Your task to perform on an android device: Open Amazon Image 0: 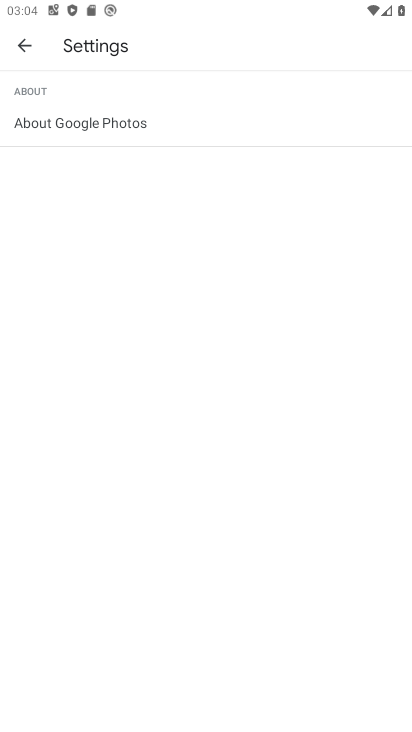
Step 0: press home button
Your task to perform on an android device: Open Amazon Image 1: 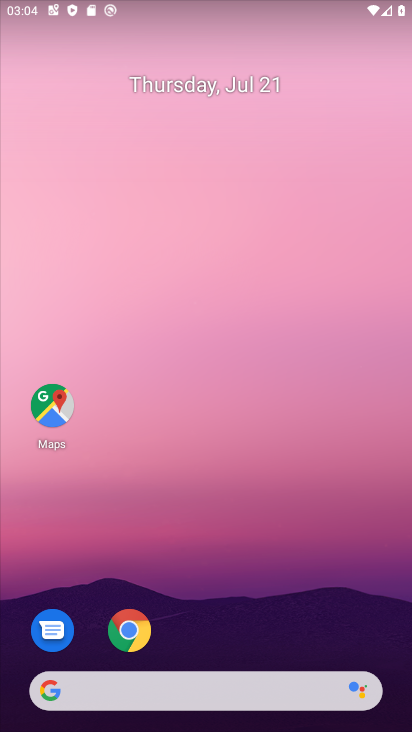
Step 1: click (133, 627)
Your task to perform on an android device: Open Amazon Image 2: 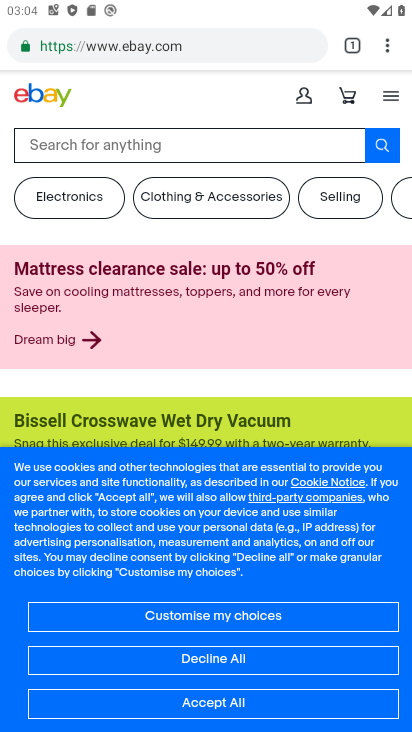
Step 2: click (350, 43)
Your task to perform on an android device: Open Amazon Image 3: 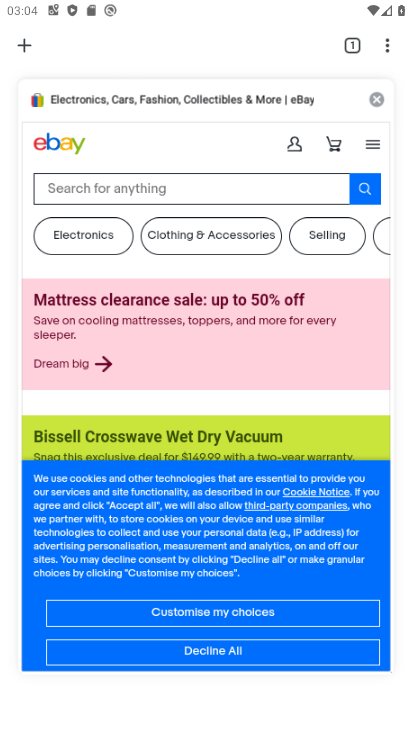
Step 3: click (17, 46)
Your task to perform on an android device: Open Amazon Image 4: 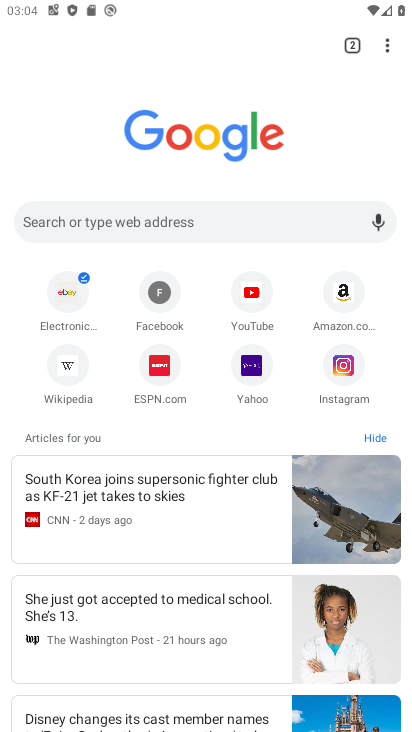
Step 4: click (331, 287)
Your task to perform on an android device: Open Amazon Image 5: 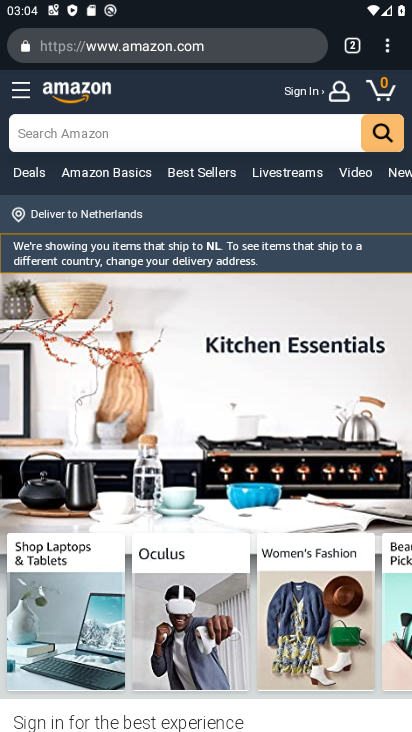
Step 5: task complete